Your task to perform on an android device: turn pop-ups off in chrome Image 0: 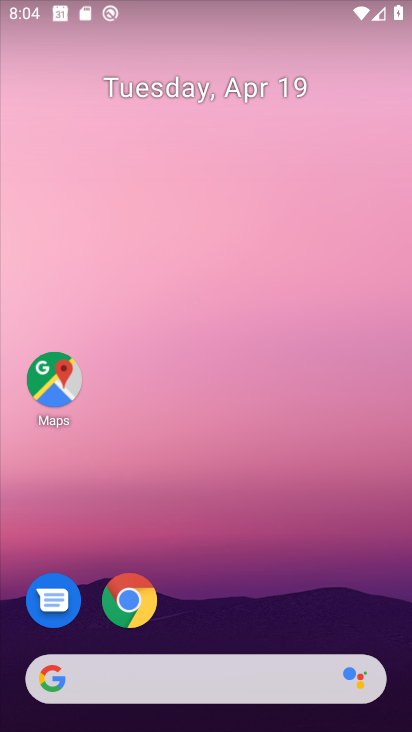
Step 0: drag from (355, 603) to (338, 108)
Your task to perform on an android device: turn pop-ups off in chrome Image 1: 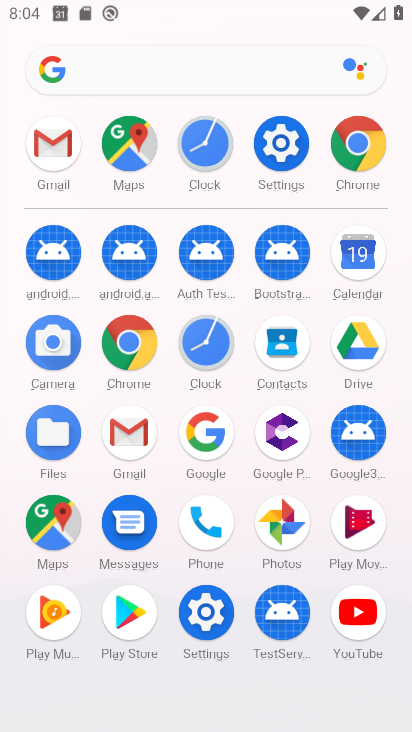
Step 1: click (367, 149)
Your task to perform on an android device: turn pop-ups off in chrome Image 2: 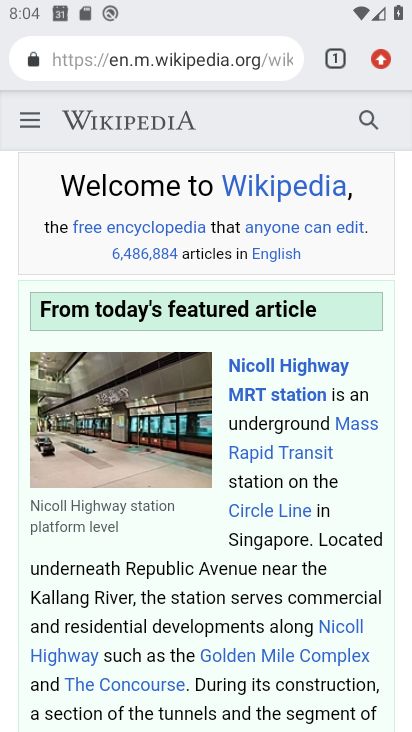
Step 2: click (385, 52)
Your task to perform on an android device: turn pop-ups off in chrome Image 3: 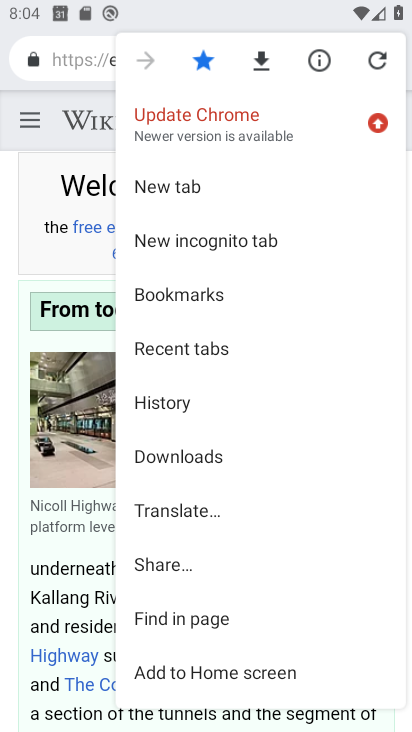
Step 3: drag from (350, 543) to (347, 263)
Your task to perform on an android device: turn pop-ups off in chrome Image 4: 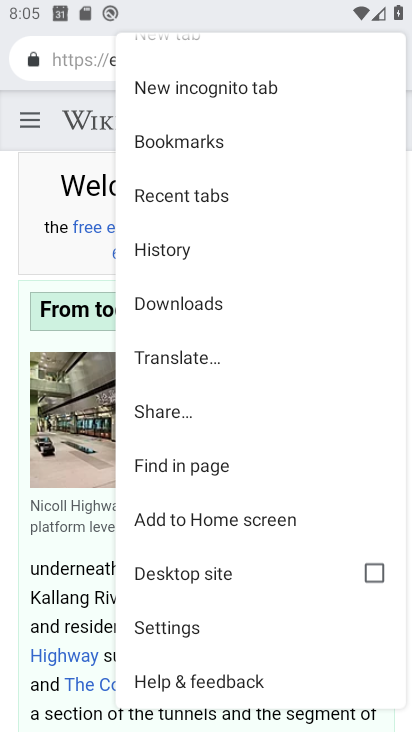
Step 4: click (178, 628)
Your task to perform on an android device: turn pop-ups off in chrome Image 5: 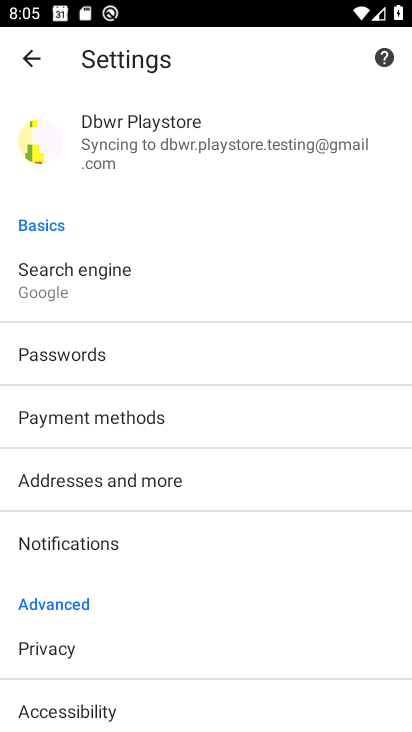
Step 5: drag from (261, 612) to (273, 387)
Your task to perform on an android device: turn pop-ups off in chrome Image 6: 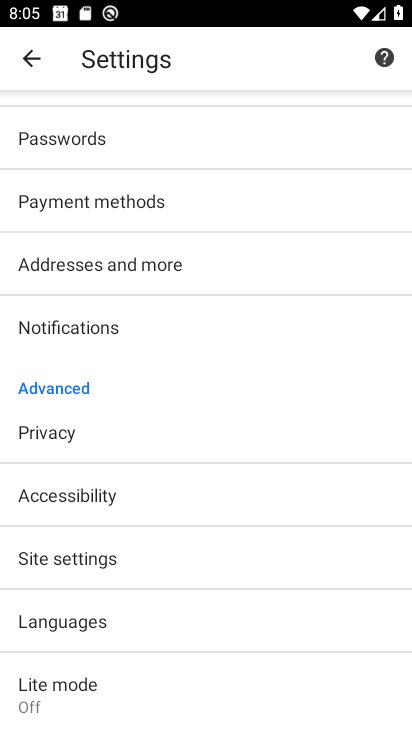
Step 6: drag from (302, 620) to (305, 360)
Your task to perform on an android device: turn pop-ups off in chrome Image 7: 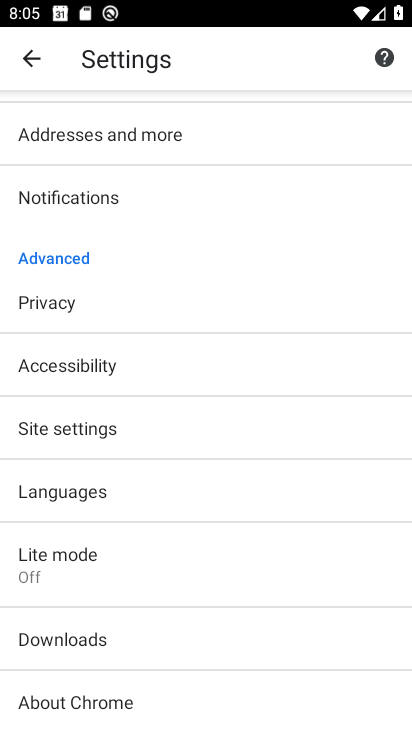
Step 7: drag from (271, 567) to (282, 277)
Your task to perform on an android device: turn pop-ups off in chrome Image 8: 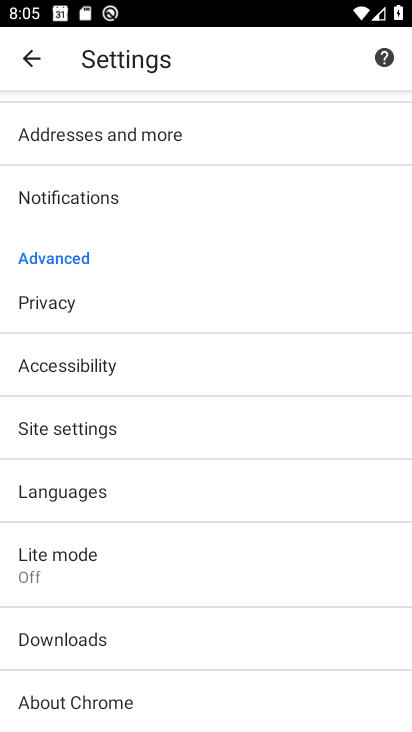
Step 8: click (184, 426)
Your task to perform on an android device: turn pop-ups off in chrome Image 9: 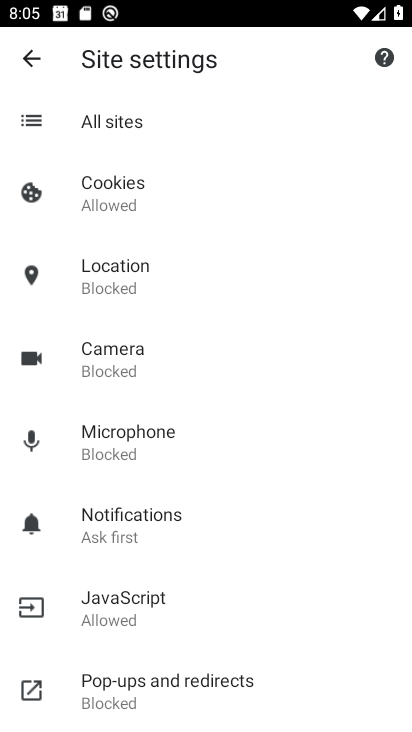
Step 9: drag from (309, 568) to (325, 359)
Your task to perform on an android device: turn pop-ups off in chrome Image 10: 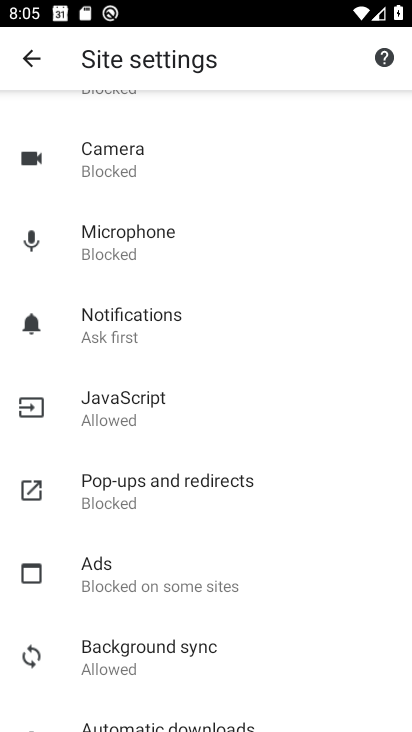
Step 10: drag from (342, 562) to (345, 345)
Your task to perform on an android device: turn pop-ups off in chrome Image 11: 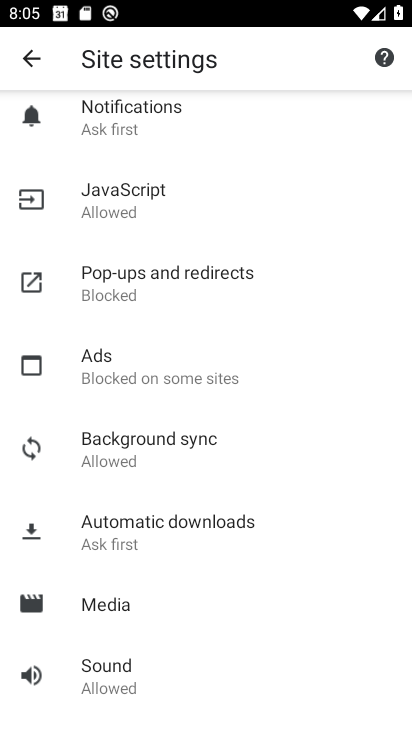
Step 11: drag from (341, 624) to (336, 377)
Your task to perform on an android device: turn pop-ups off in chrome Image 12: 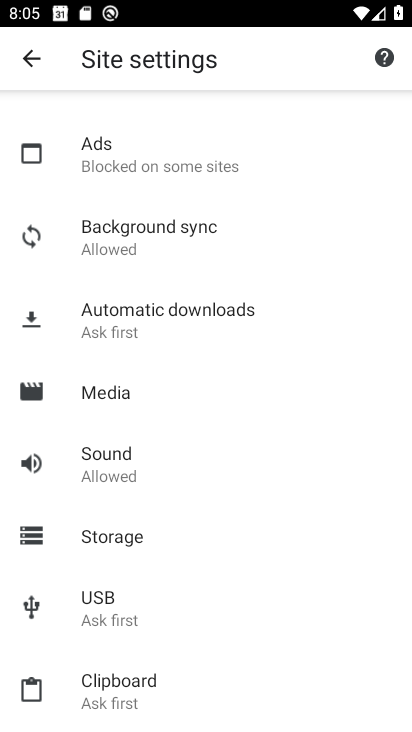
Step 12: drag from (327, 631) to (328, 409)
Your task to perform on an android device: turn pop-ups off in chrome Image 13: 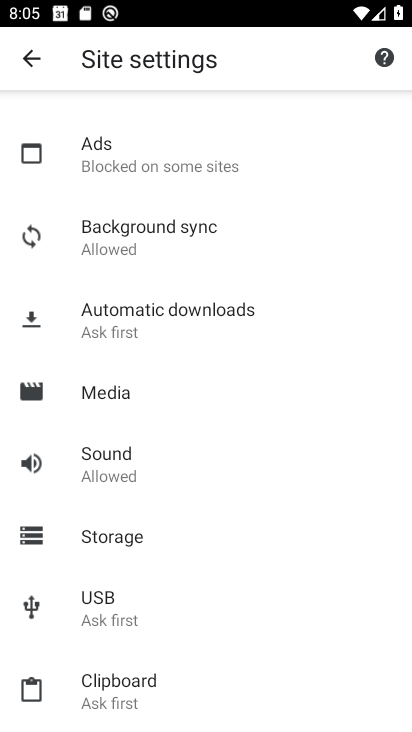
Step 13: drag from (329, 368) to (338, 575)
Your task to perform on an android device: turn pop-ups off in chrome Image 14: 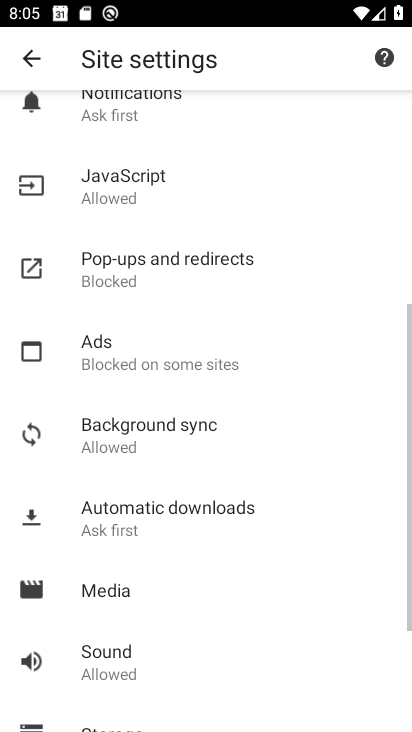
Step 14: drag from (318, 348) to (320, 529)
Your task to perform on an android device: turn pop-ups off in chrome Image 15: 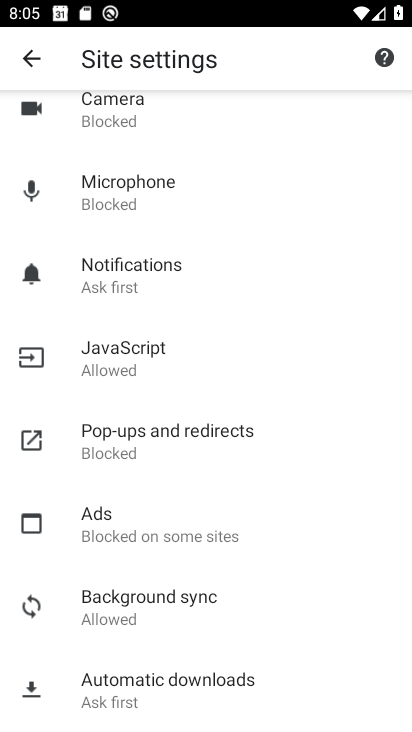
Step 15: click (223, 434)
Your task to perform on an android device: turn pop-ups off in chrome Image 16: 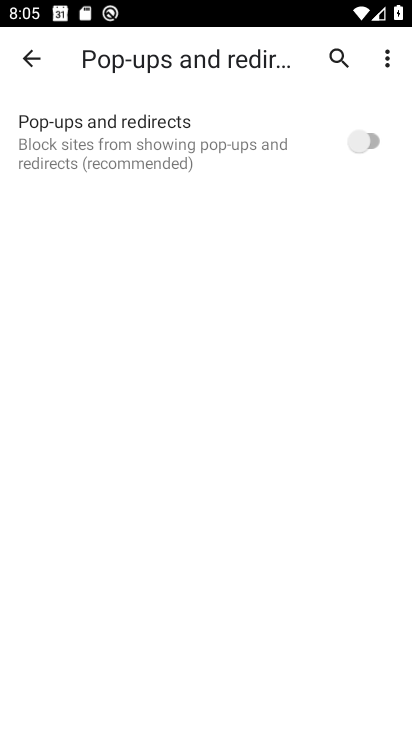
Step 16: task complete